Your task to perform on an android device: check battery use Image 0: 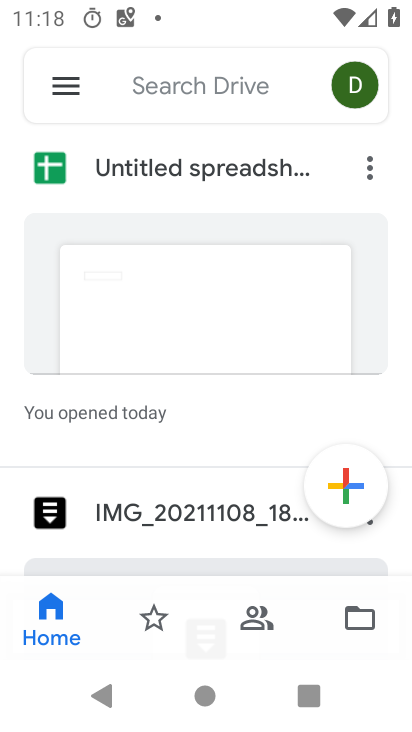
Step 0: press home button
Your task to perform on an android device: check battery use Image 1: 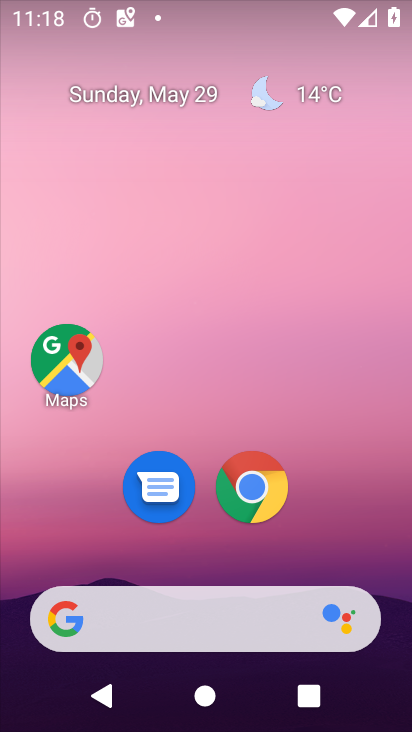
Step 1: drag from (401, 683) to (326, 120)
Your task to perform on an android device: check battery use Image 2: 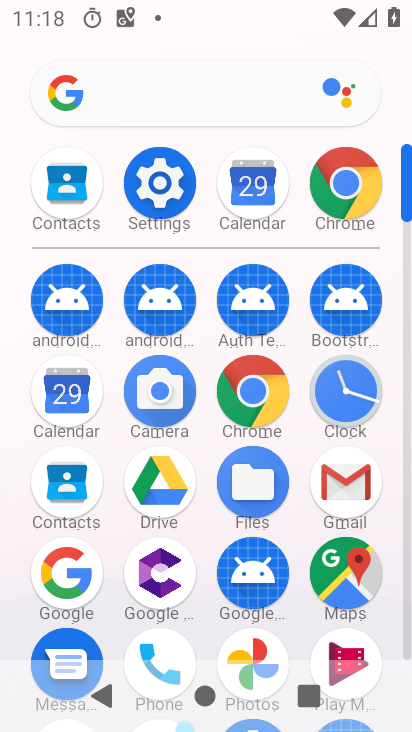
Step 2: click (140, 147)
Your task to perform on an android device: check battery use Image 3: 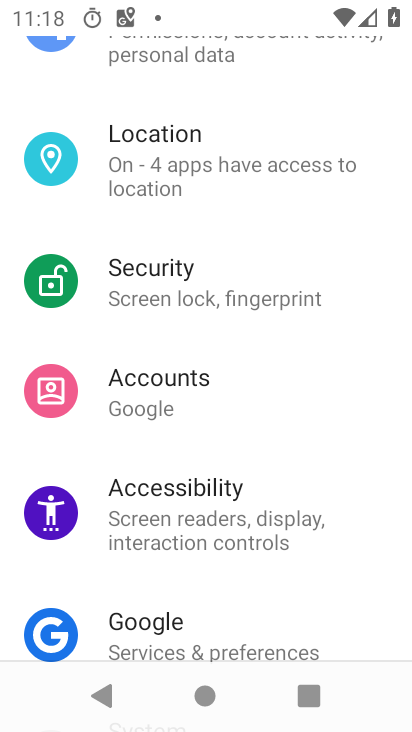
Step 3: drag from (362, 626) to (340, 232)
Your task to perform on an android device: check battery use Image 4: 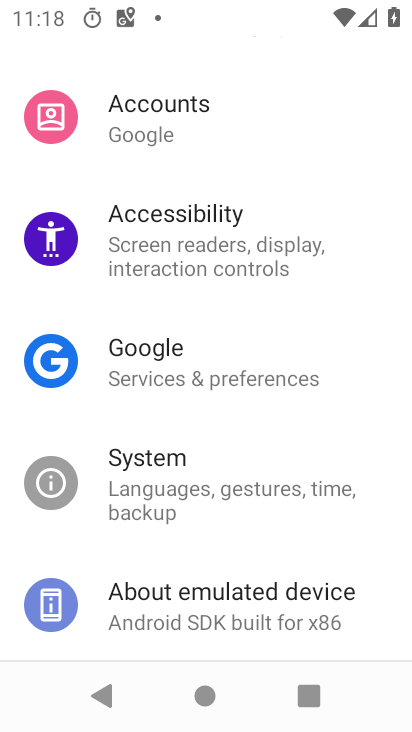
Step 4: drag from (312, 172) to (339, 599)
Your task to perform on an android device: check battery use Image 5: 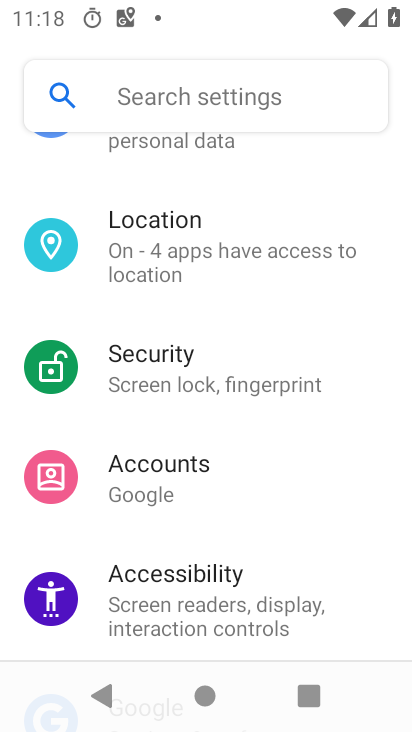
Step 5: click (399, 465)
Your task to perform on an android device: check battery use Image 6: 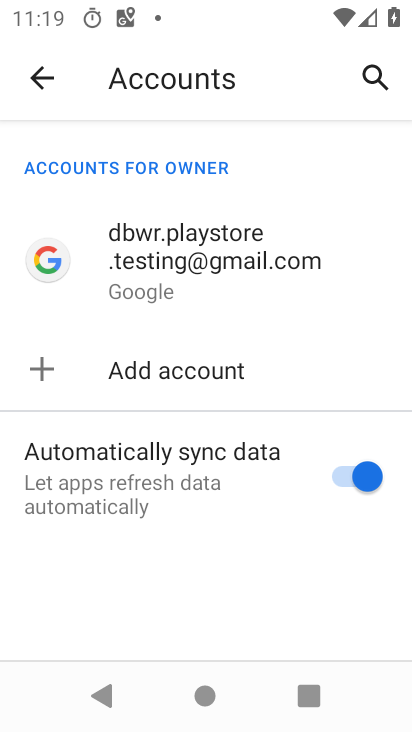
Step 6: click (31, 81)
Your task to perform on an android device: check battery use Image 7: 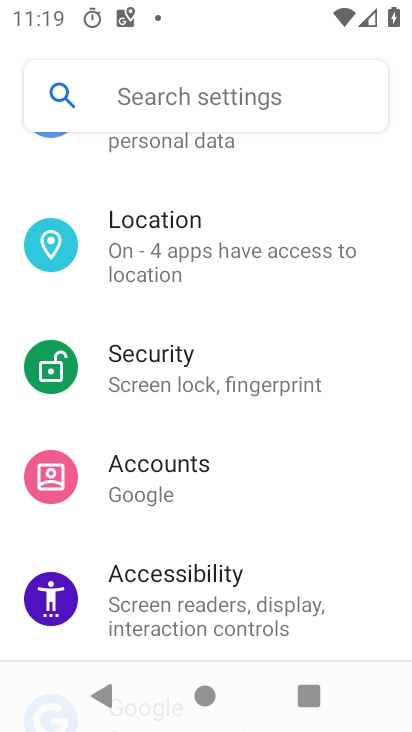
Step 7: drag from (325, 159) to (328, 435)
Your task to perform on an android device: check battery use Image 8: 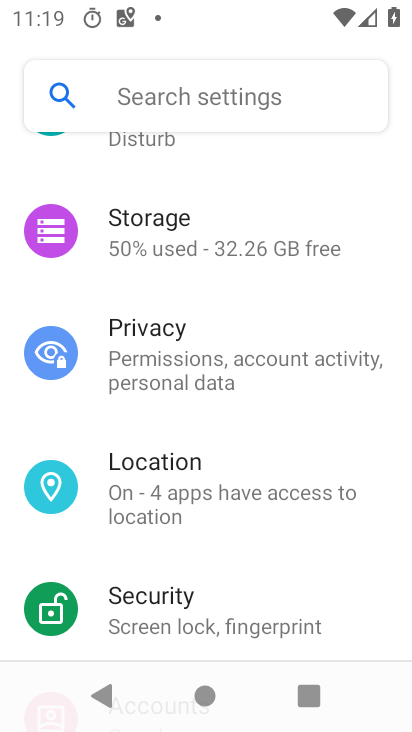
Step 8: drag from (269, 177) to (315, 460)
Your task to perform on an android device: check battery use Image 9: 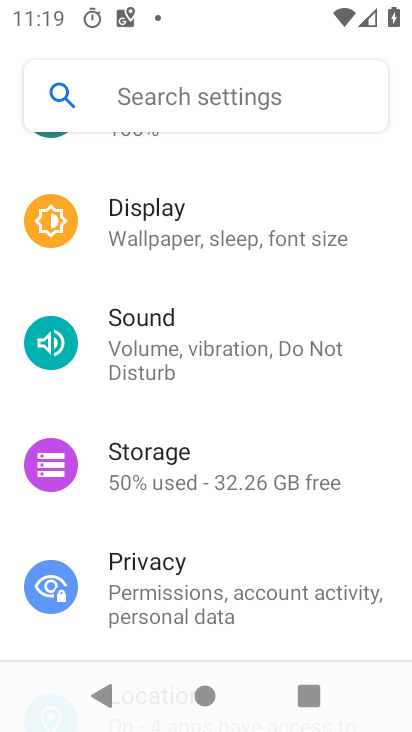
Step 9: drag from (292, 179) to (314, 424)
Your task to perform on an android device: check battery use Image 10: 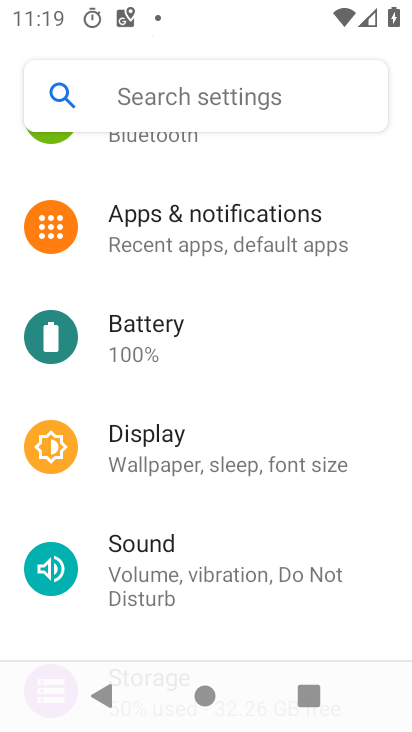
Step 10: click (124, 354)
Your task to perform on an android device: check battery use Image 11: 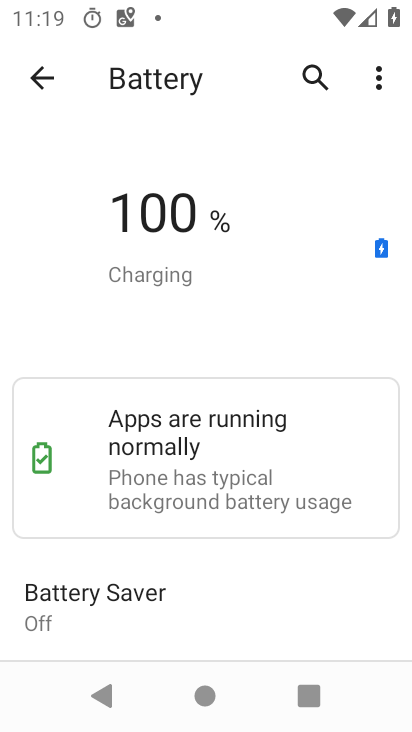
Step 11: click (378, 73)
Your task to perform on an android device: check battery use Image 12: 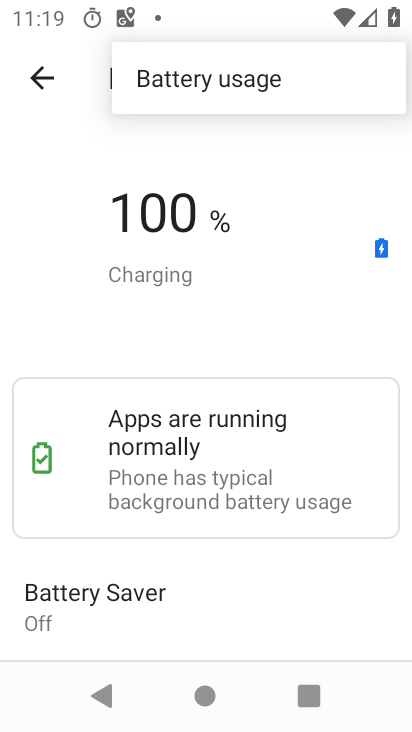
Step 12: click (229, 77)
Your task to perform on an android device: check battery use Image 13: 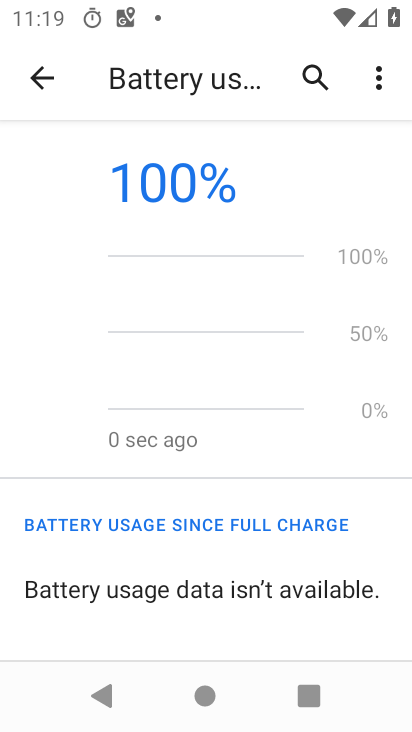
Step 13: task complete